Your task to perform on an android device: change the clock display to digital Image 0: 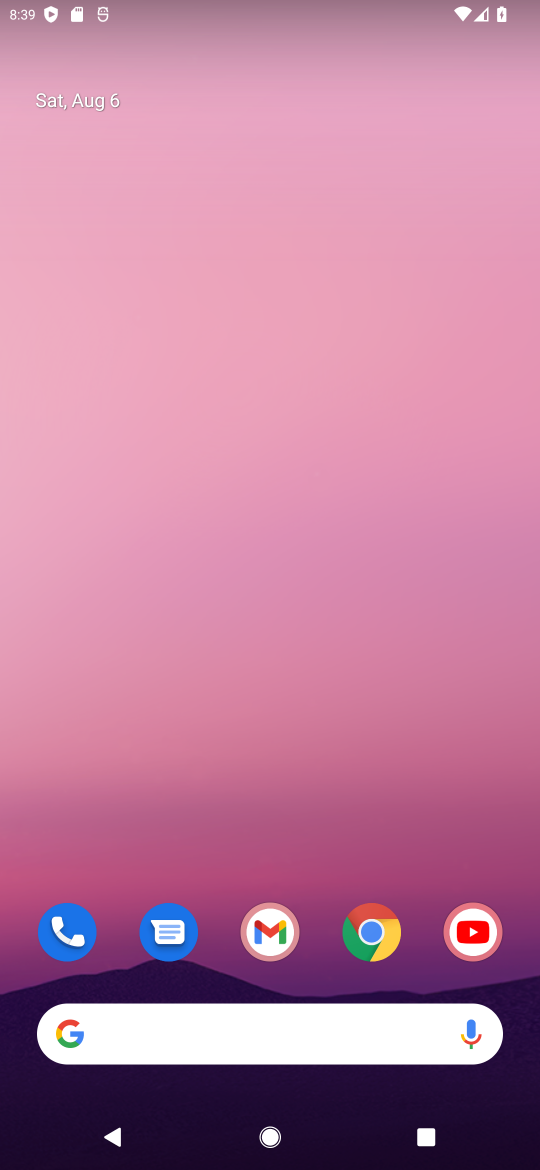
Step 0: drag from (248, 1041) to (247, 299)
Your task to perform on an android device: change the clock display to digital Image 1: 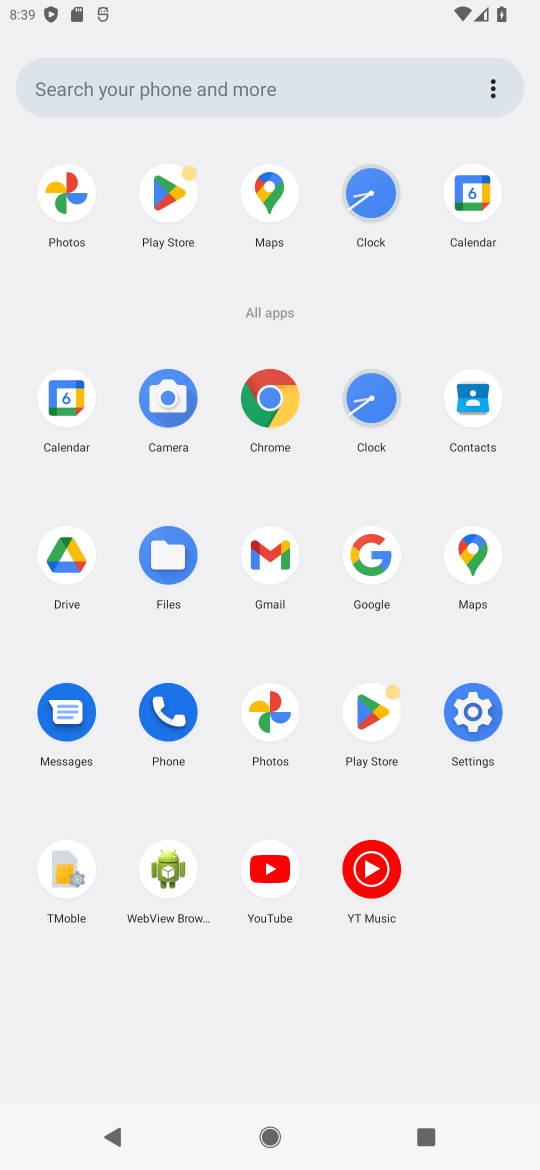
Step 1: click (369, 191)
Your task to perform on an android device: change the clock display to digital Image 2: 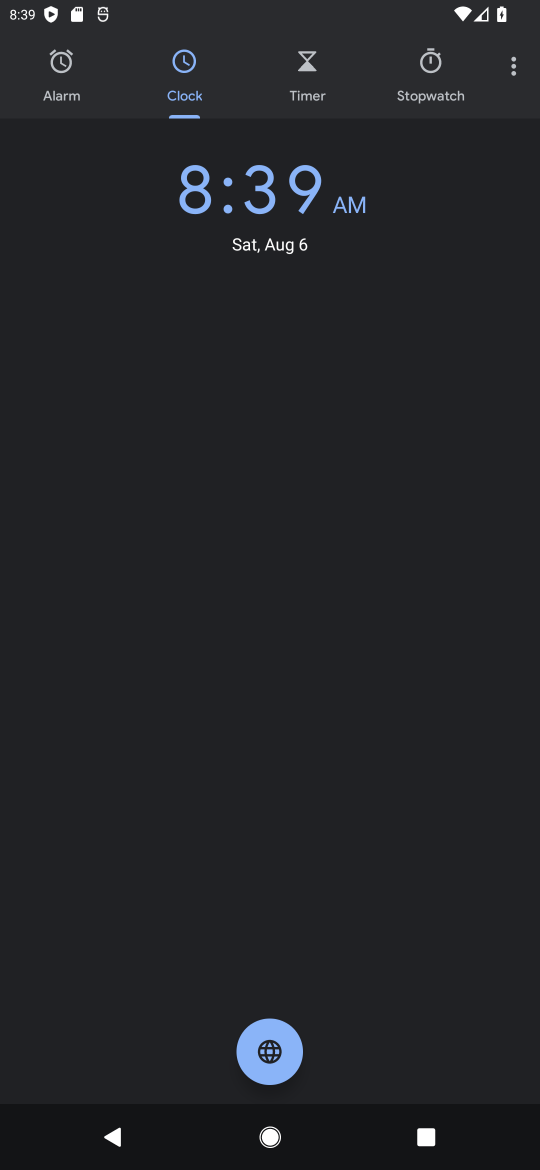
Step 2: click (518, 68)
Your task to perform on an android device: change the clock display to digital Image 3: 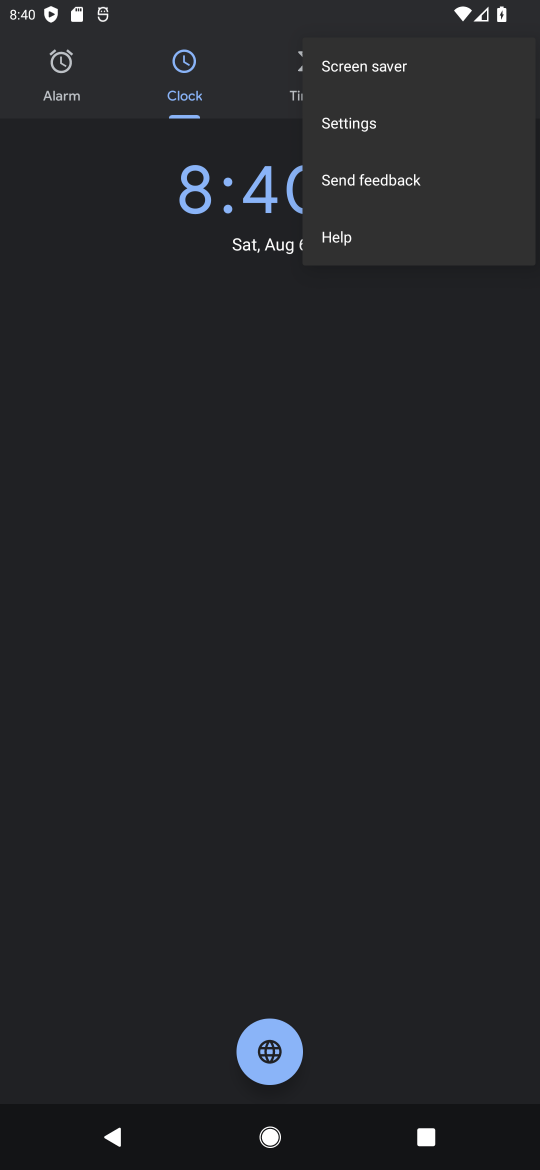
Step 3: click (372, 128)
Your task to perform on an android device: change the clock display to digital Image 4: 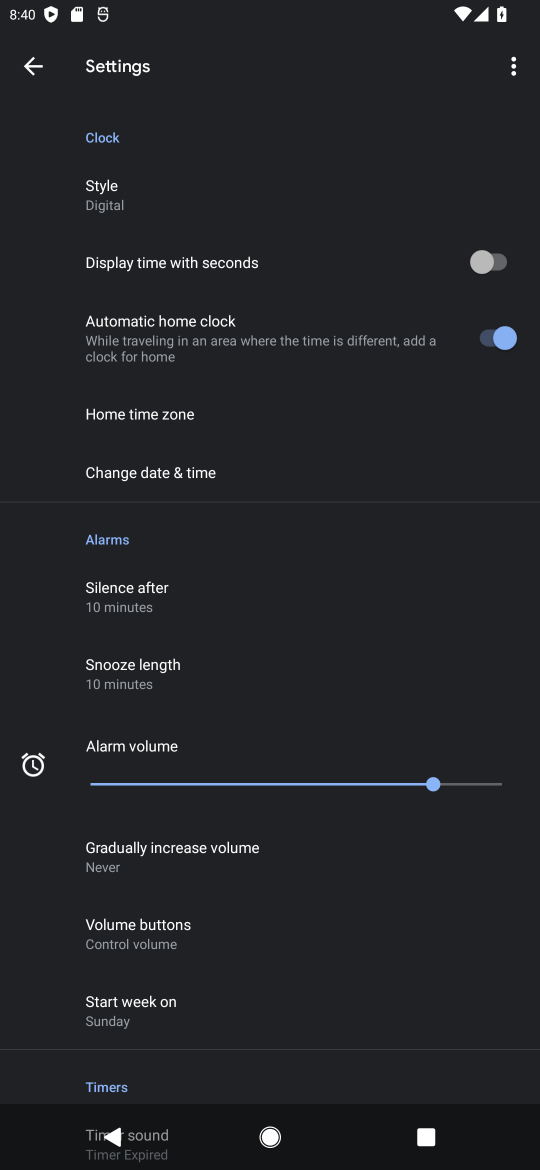
Step 4: click (108, 210)
Your task to perform on an android device: change the clock display to digital Image 5: 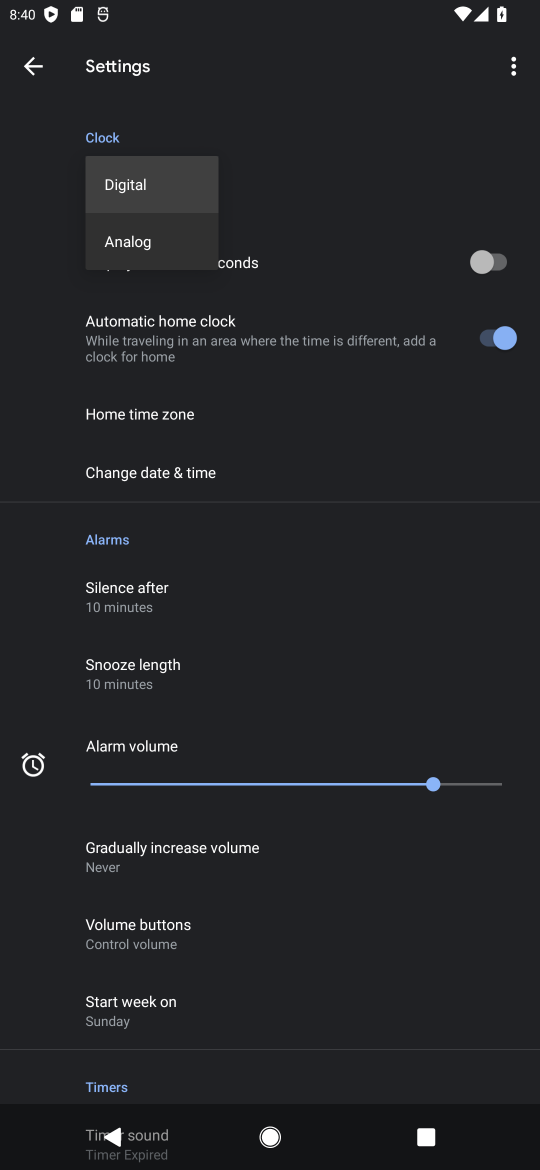
Step 5: click (129, 194)
Your task to perform on an android device: change the clock display to digital Image 6: 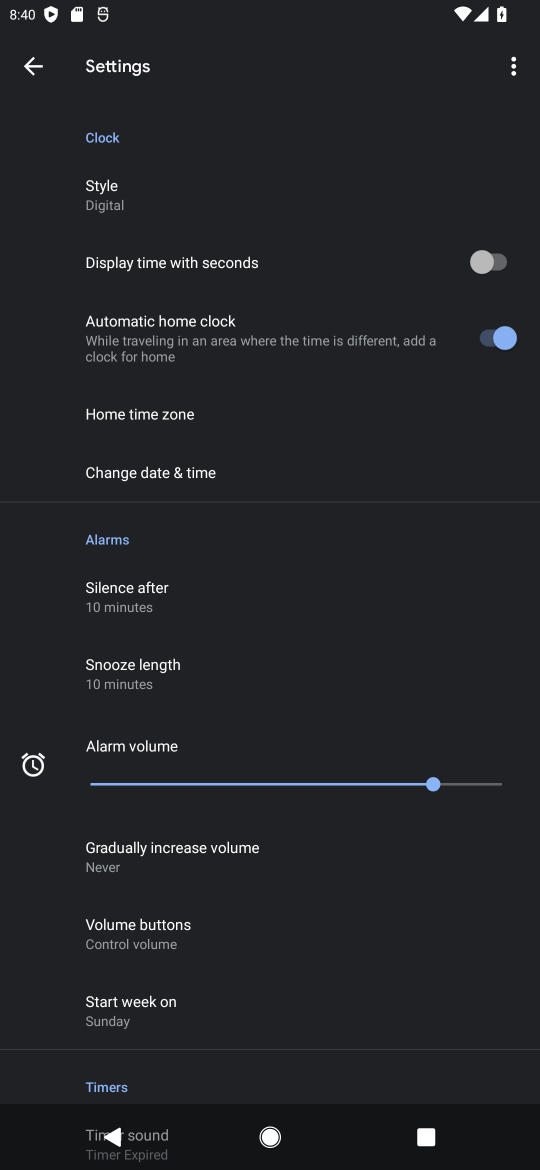
Step 6: task complete